Your task to perform on an android device: Go to ESPN.com Image 0: 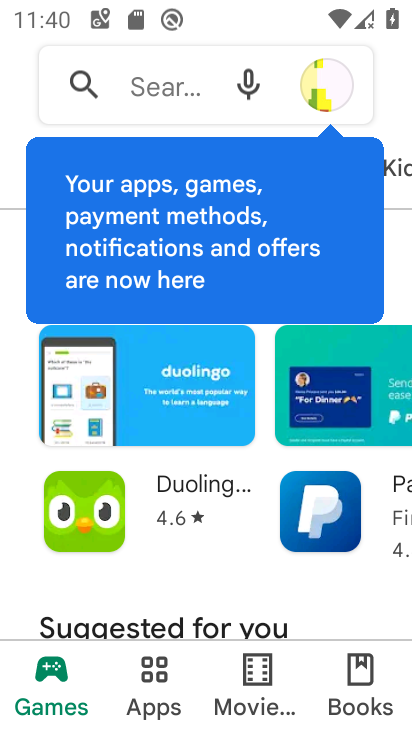
Step 0: press home button
Your task to perform on an android device: Go to ESPN.com Image 1: 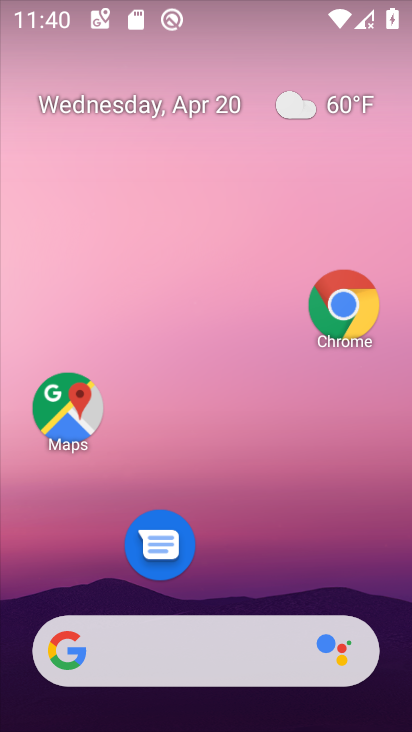
Step 1: drag from (308, 563) to (362, 178)
Your task to perform on an android device: Go to ESPN.com Image 2: 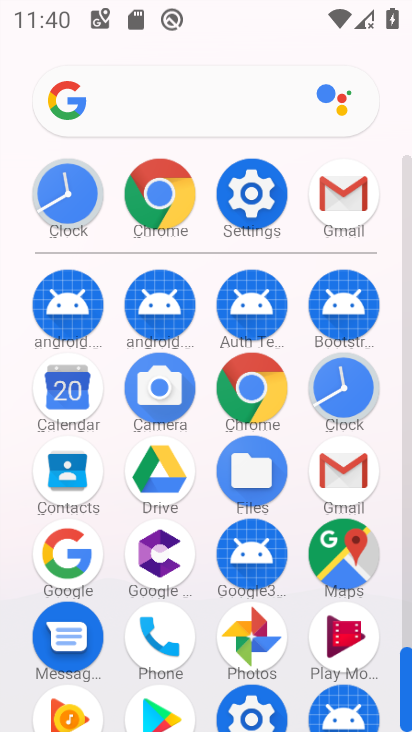
Step 2: click (257, 387)
Your task to perform on an android device: Go to ESPN.com Image 3: 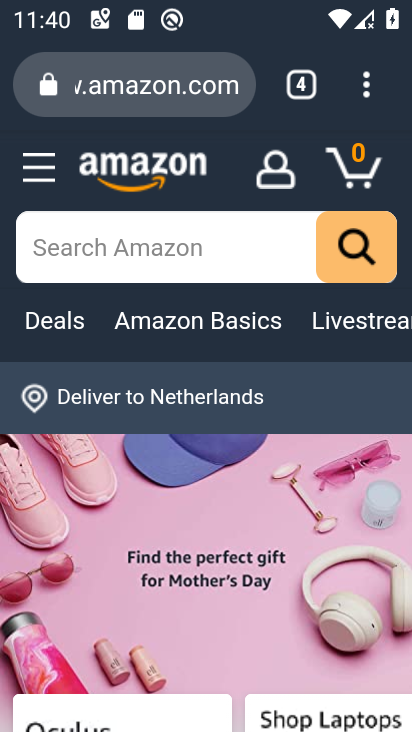
Step 3: click (207, 105)
Your task to perform on an android device: Go to ESPN.com Image 4: 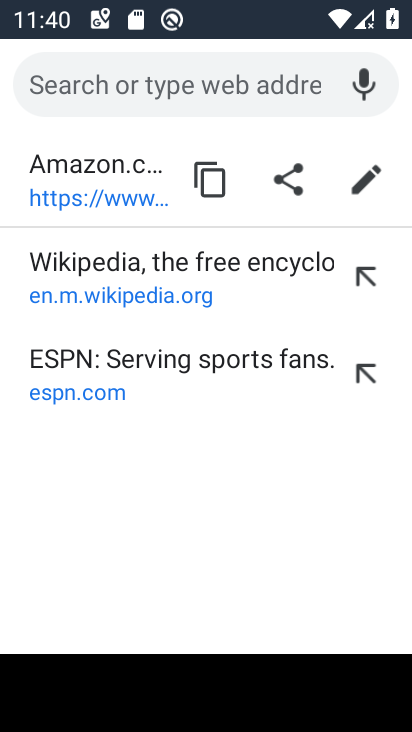
Step 4: click (171, 368)
Your task to perform on an android device: Go to ESPN.com Image 5: 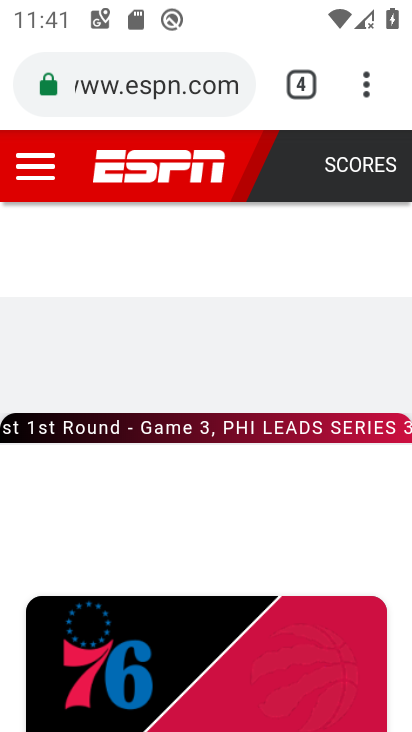
Step 5: task complete